Your task to perform on an android device: Search for a good pizza place on Maps Image 0: 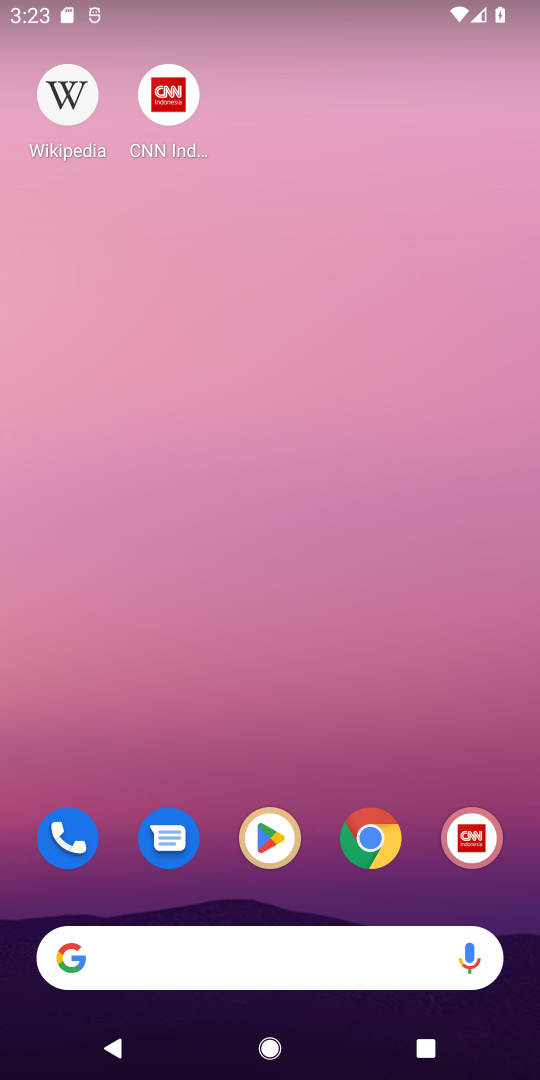
Step 0: drag from (294, 705) to (332, 401)
Your task to perform on an android device: Search for a good pizza place on Maps Image 1: 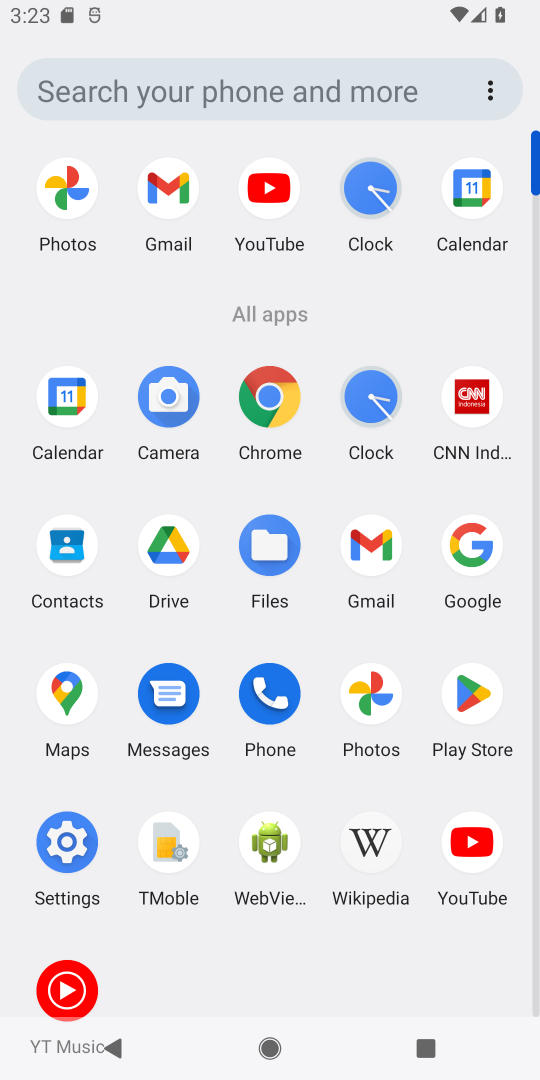
Step 1: click (84, 703)
Your task to perform on an android device: Search for a good pizza place on Maps Image 2: 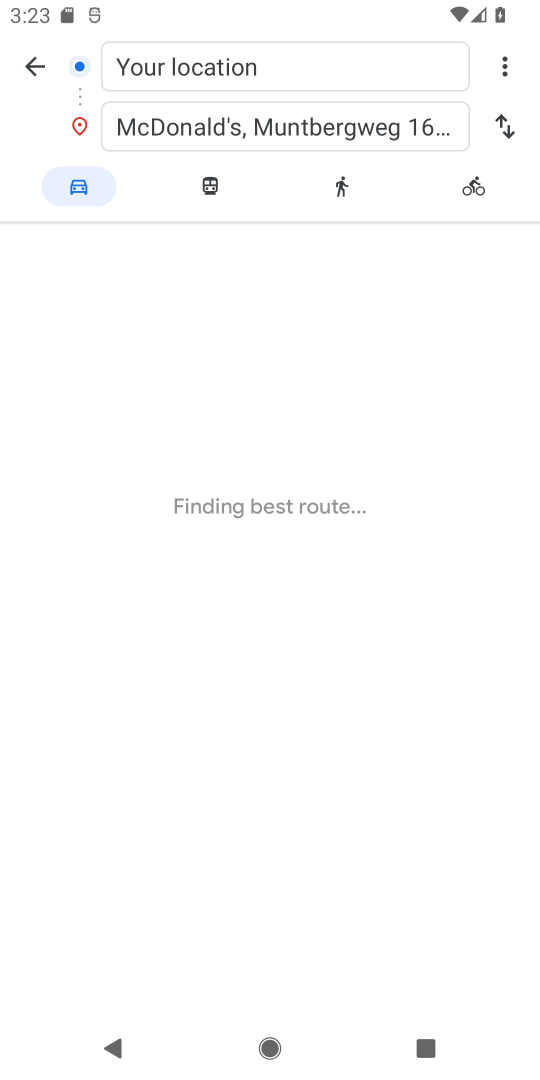
Step 2: click (301, 115)
Your task to perform on an android device: Search for a good pizza place on Maps Image 3: 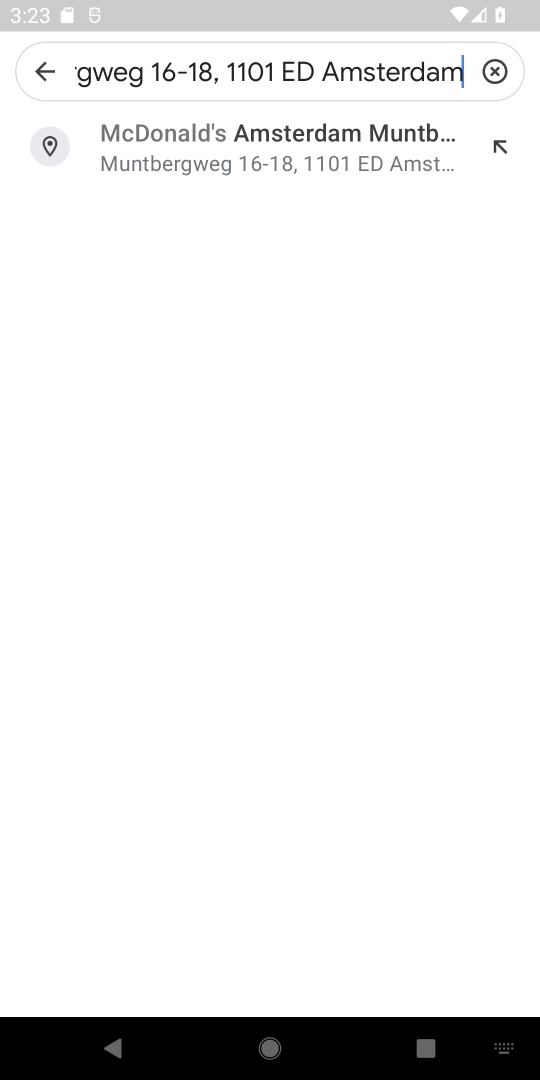
Step 3: click (496, 68)
Your task to perform on an android device: Search for a good pizza place on Maps Image 4: 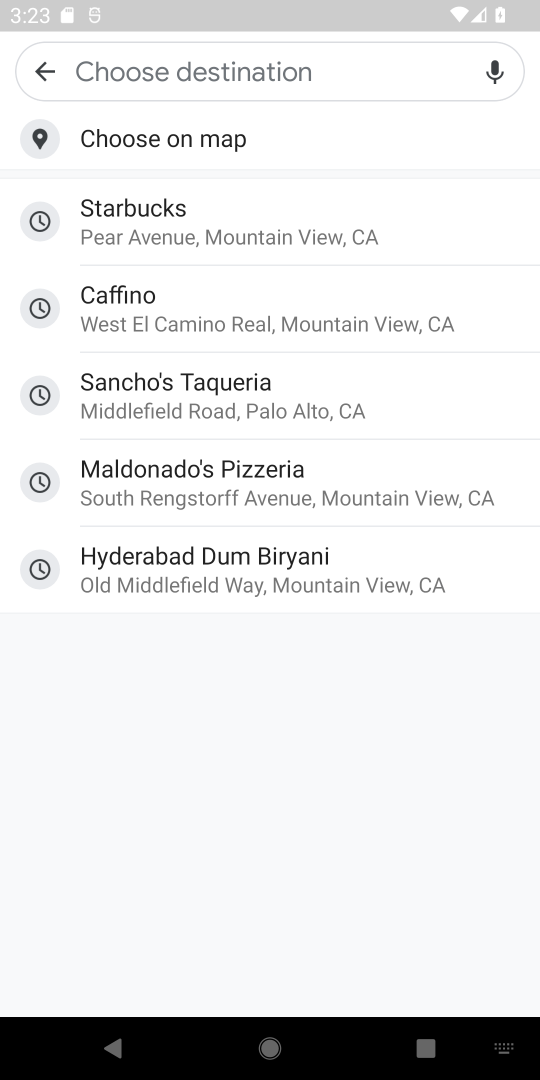
Step 4: type " good pizza place"
Your task to perform on an android device: Search for a good pizza place on Maps Image 5: 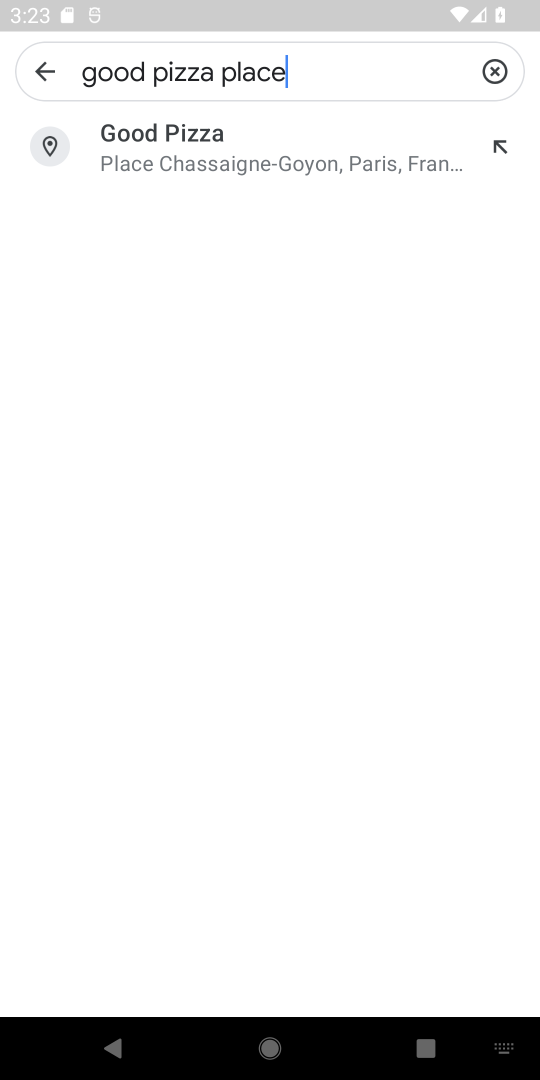
Step 5: click (292, 161)
Your task to perform on an android device: Search for a good pizza place on Maps Image 6: 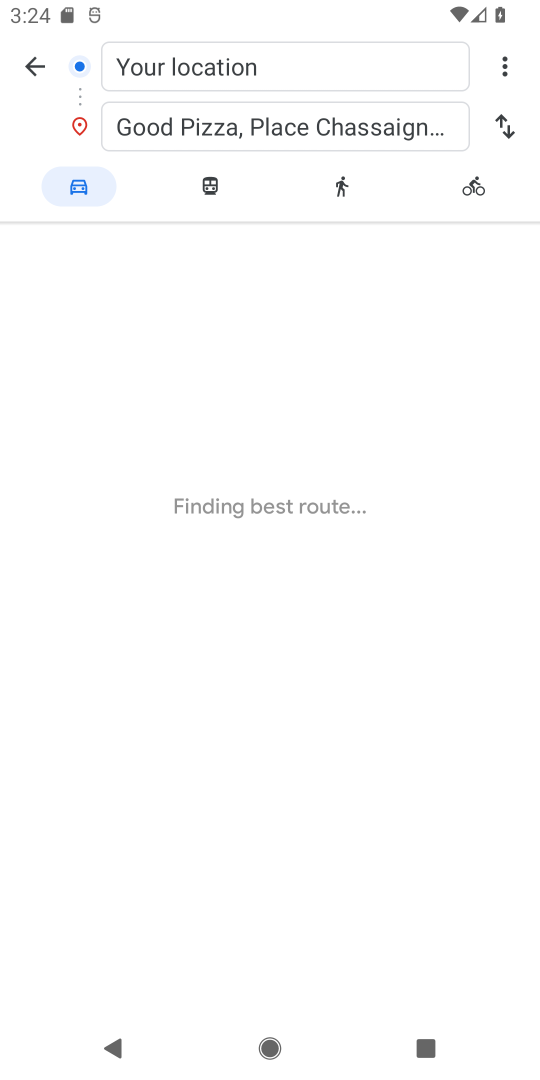
Step 6: task complete